Your task to perform on an android device: toggle translation in the chrome app Image 0: 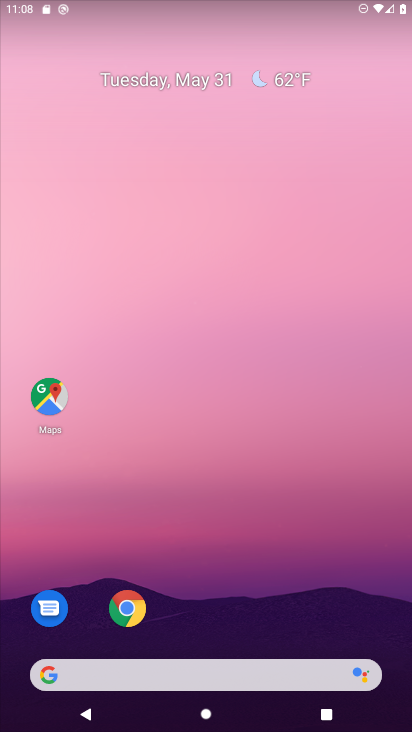
Step 0: drag from (339, 591) to (285, 168)
Your task to perform on an android device: toggle translation in the chrome app Image 1: 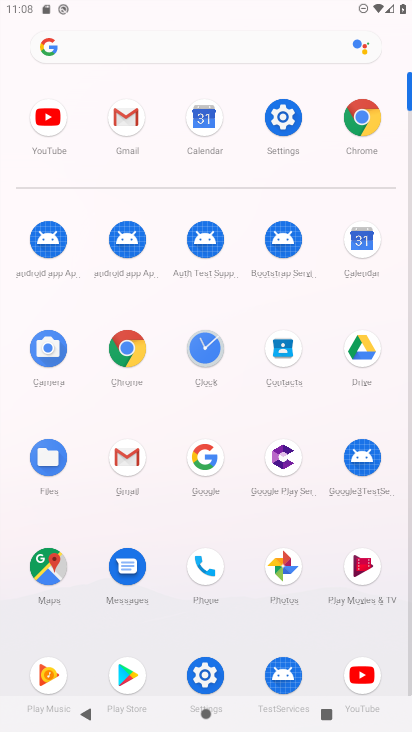
Step 1: click (121, 355)
Your task to perform on an android device: toggle translation in the chrome app Image 2: 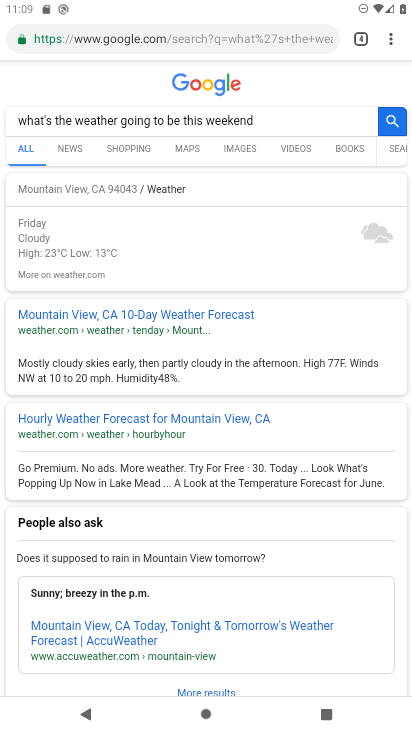
Step 2: drag from (397, 49) to (280, 477)
Your task to perform on an android device: toggle translation in the chrome app Image 3: 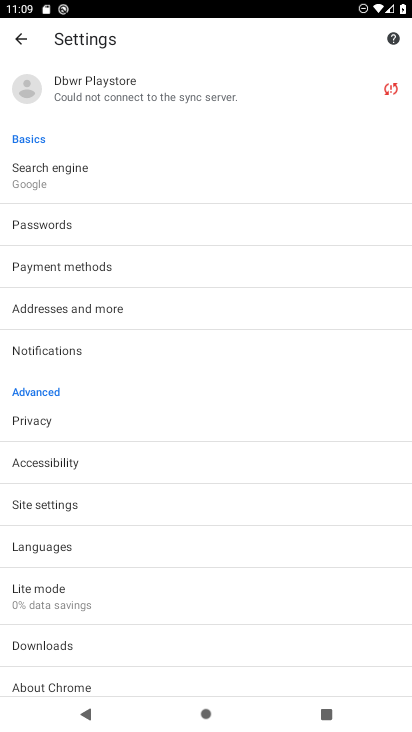
Step 3: drag from (132, 609) to (221, 302)
Your task to perform on an android device: toggle translation in the chrome app Image 4: 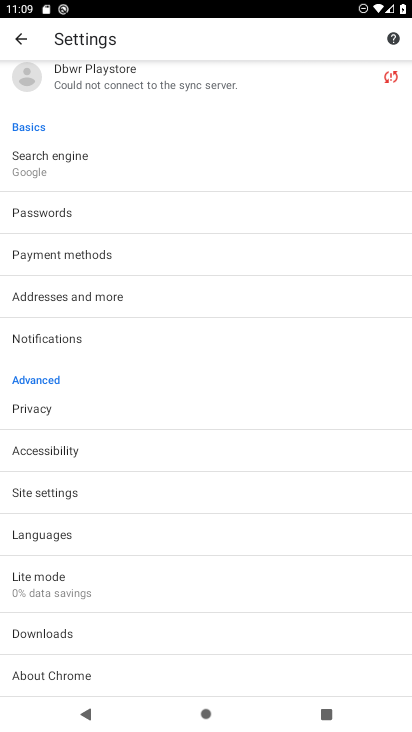
Step 4: click (19, 549)
Your task to perform on an android device: toggle translation in the chrome app Image 5: 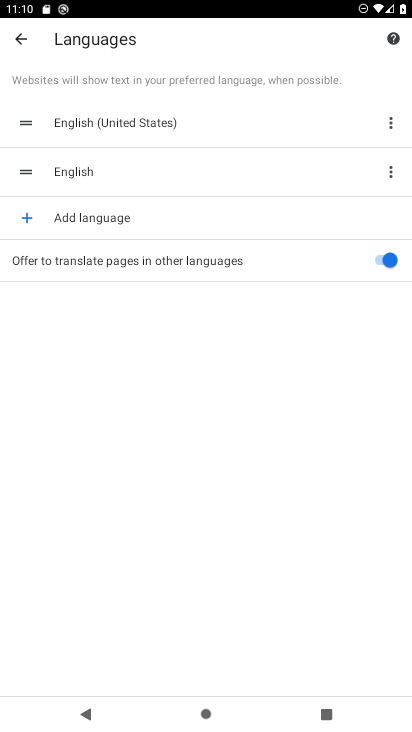
Step 5: click (383, 259)
Your task to perform on an android device: toggle translation in the chrome app Image 6: 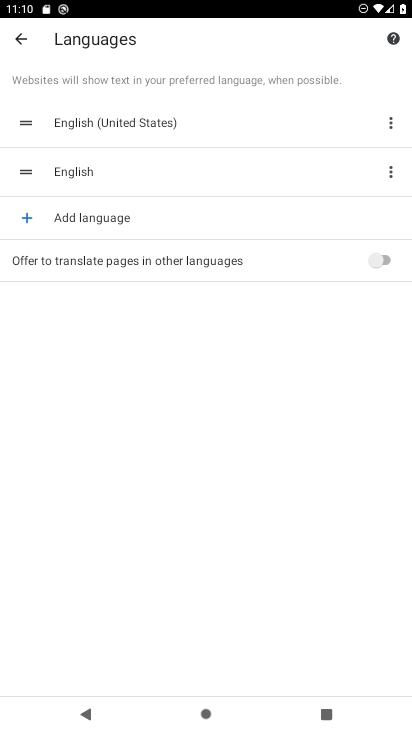
Step 6: task complete